Your task to perform on an android device: turn pop-ups on in chrome Image 0: 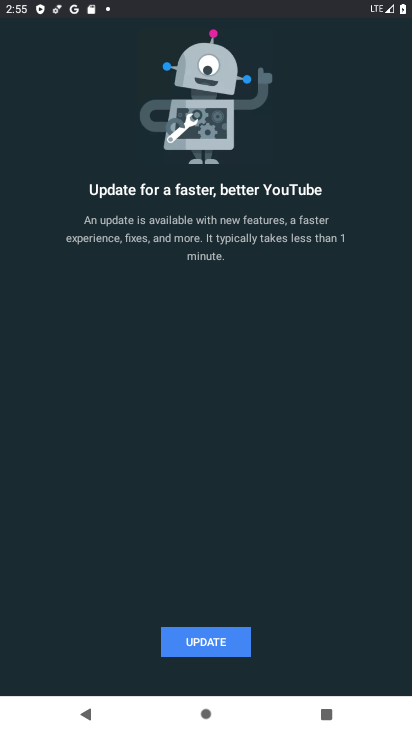
Step 0: press back button
Your task to perform on an android device: turn pop-ups on in chrome Image 1: 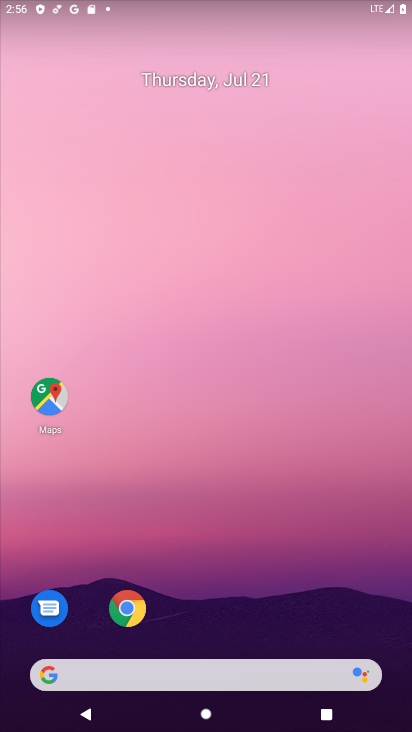
Step 1: click (138, 601)
Your task to perform on an android device: turn pop-ups on in chrome Image 2: 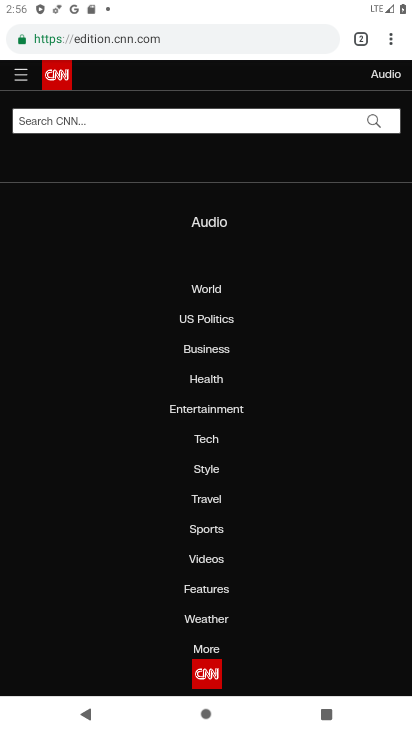
Step 2: drag from (388, 29) to (259, 508)
Your task to perform on an android device: turn pop-ups on in chrome Image 3: 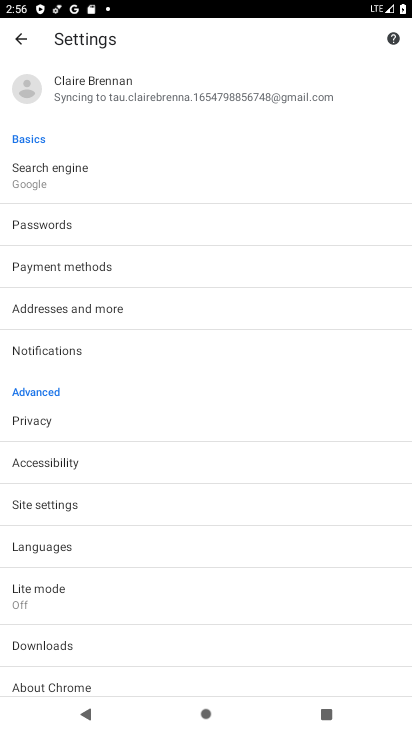
Step 3: click (40, 503)
Your task to perform on an android device: turn pop-ups on in chrome Image 4: 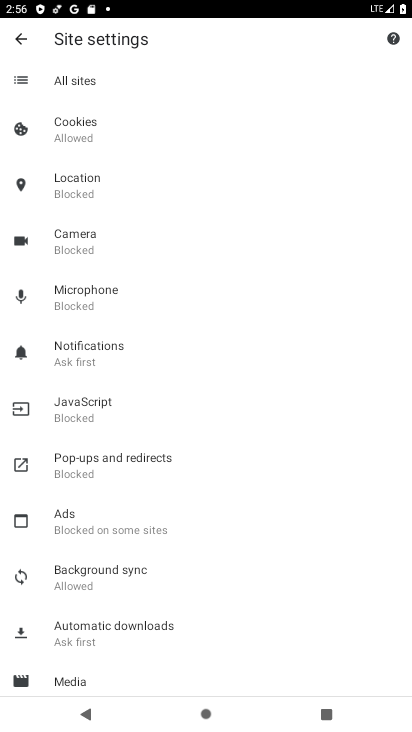
Step 4: click (75, 469)
Your task to perform on an android device: turn pop-ups on in chrome Image 5: 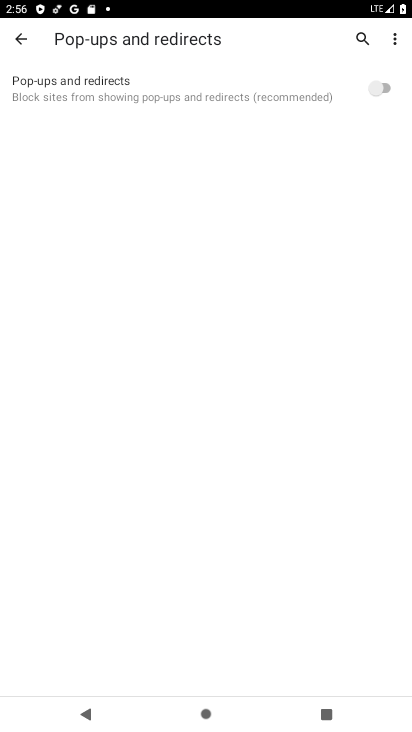
Step 5: task complete